Your task to perform on an android device: turn vacation reply on in the gmail app Image 0: 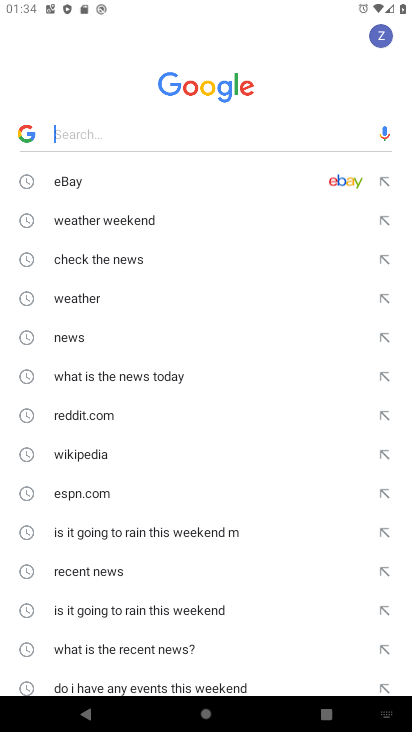
Step 0: press back button
Your task to perform on an android device: turn vacation reply on in the gmail app Image 1: 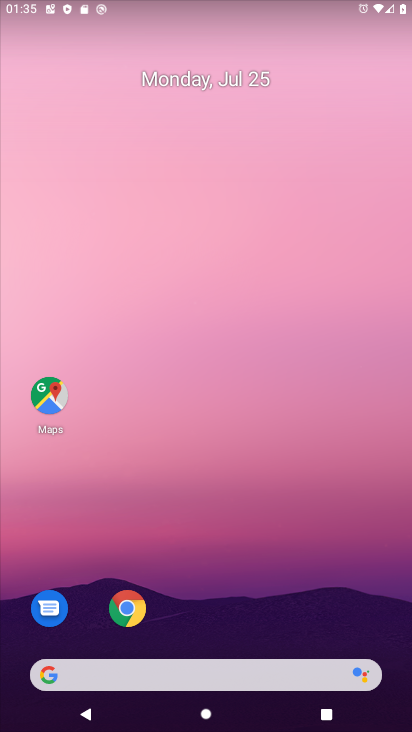
Step 1: drag from (247, 644) to (212, 160)
Your task to perform on an android device: turn vacation reply on in the gmail app Image 2: 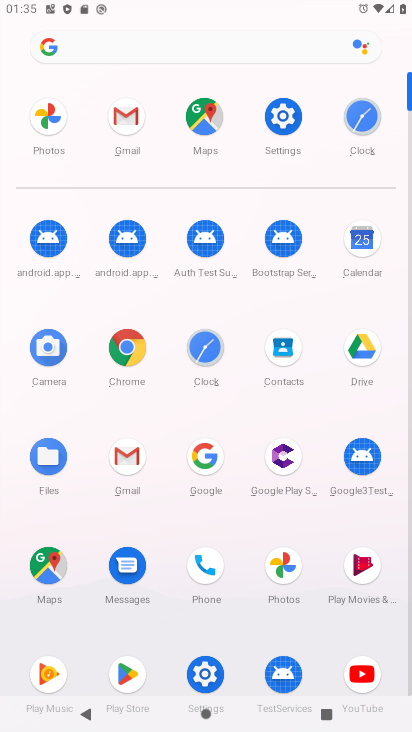
Step 2: click (137, 465)
Your task to perform on an android device: turn vacation reply on in the gmail app Image 3: 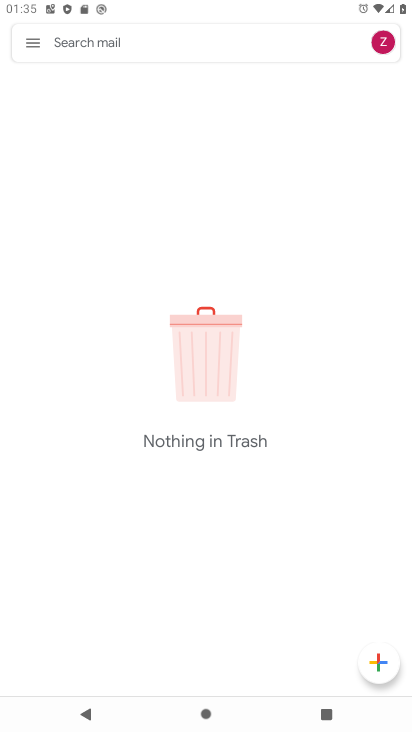
Step 3: click (40, 40)
Your task to perform on an android device: turn vacation reply on in the gmail app Image 4: 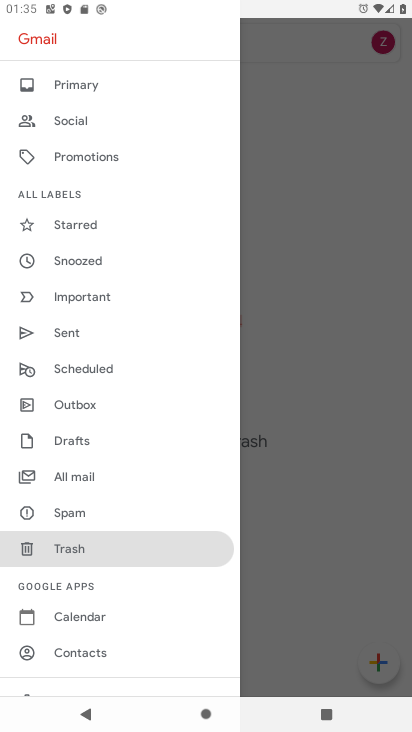
Step 4: drag from (129, 571) to (62, 101)
Your task to perform on an android device: turn vacation reply on in the gmail app Image 5: 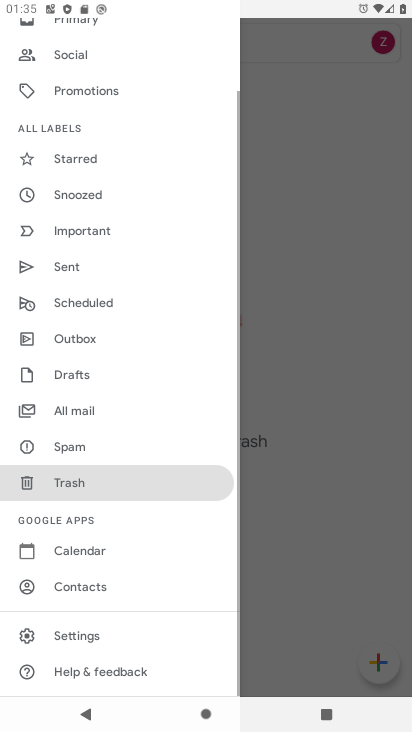
Step 5: click (69, 629)
Your task to perform on an android device: turn vacation reply on in the gmail app Image 6: 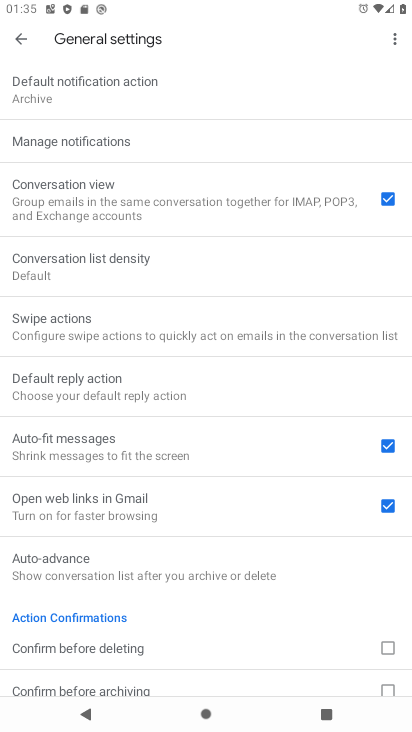
Step 6: click (70, 153)
Your task to perform on an android device: turn vacation reply on in the gmail app Image 7: 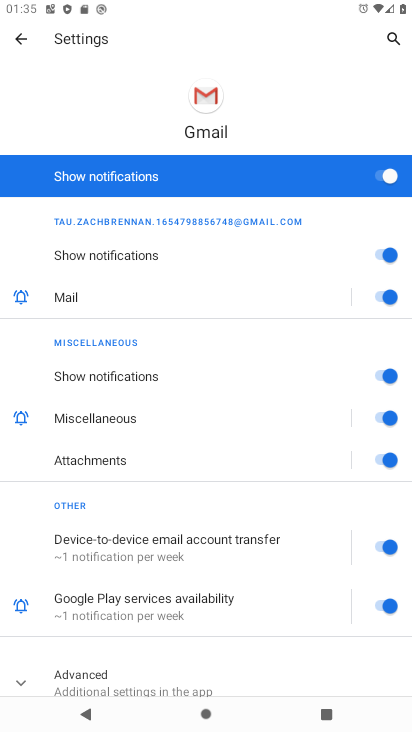
Step 7: click (22, 46)
Your task to perform on an android device: turn vacation reply on in the gmail app Image 8: 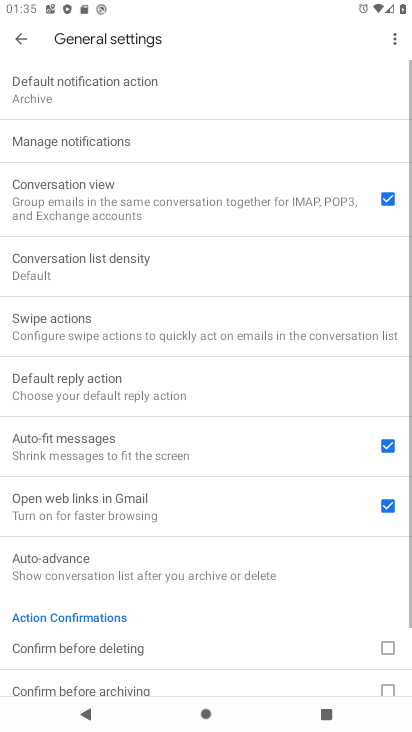
Step 8: drag from (143, 600) to (140, 134)
Your task to perform on an android device: turn vacation reply on in the gmail app Image 9: 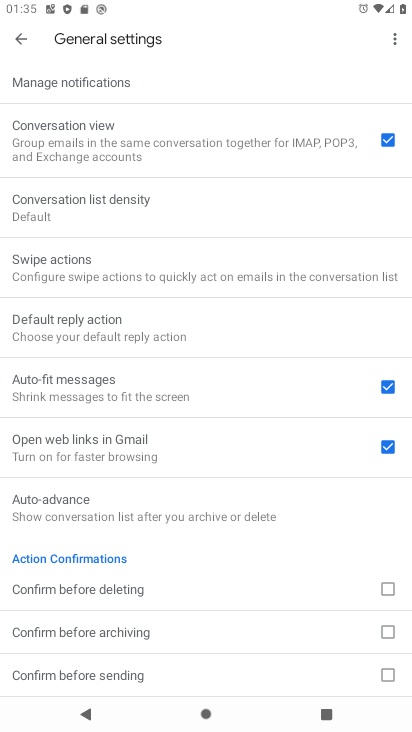
Step 9: click (27, 33)
Your task to perform on an android device: turn vacation reply on in the gmail app Image 10: 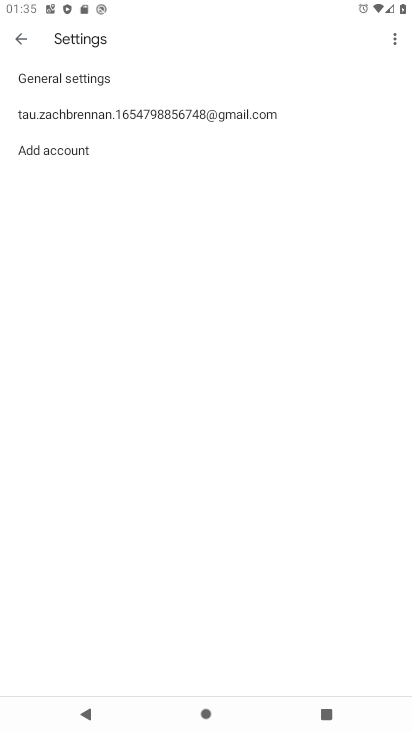
Step 10: click (57, 111)
Your task to perform on an android device: turn vacation reply on in the gmail app Image 11: 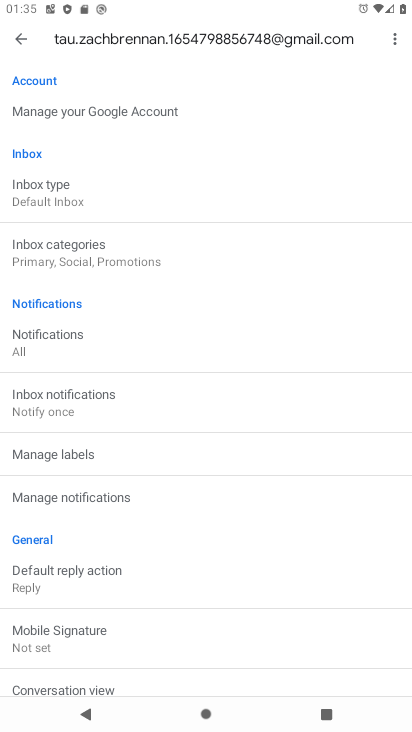
Step 11: drag from (210, 605) to (187, 302)
Your task to perform on an android device: turn vacation reply on in the gmail app Image 12: 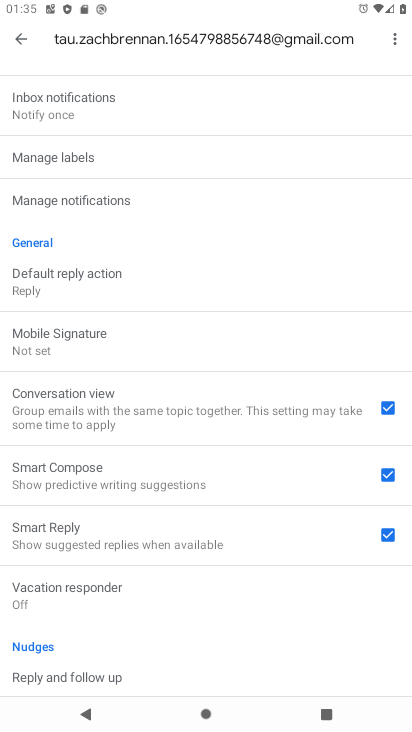
Step 12: click (206, 603)
Your task to perform on an android device: turn vacation reply on in the gmail app Image 13: 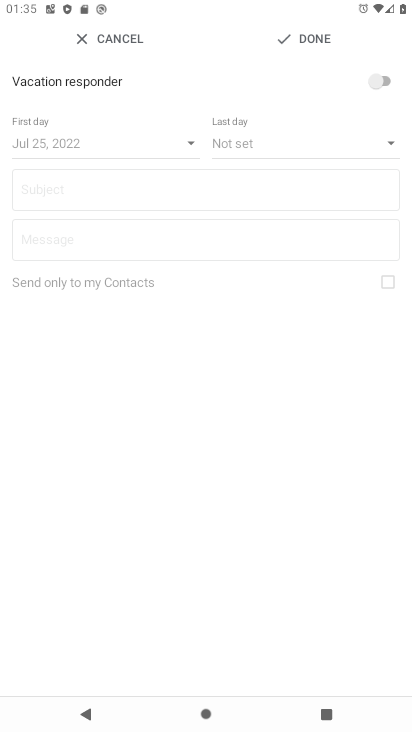
Step 13: click (371, 76)
Your task to perform on an android device: turn vacation reply on in the gmail app Image 14: 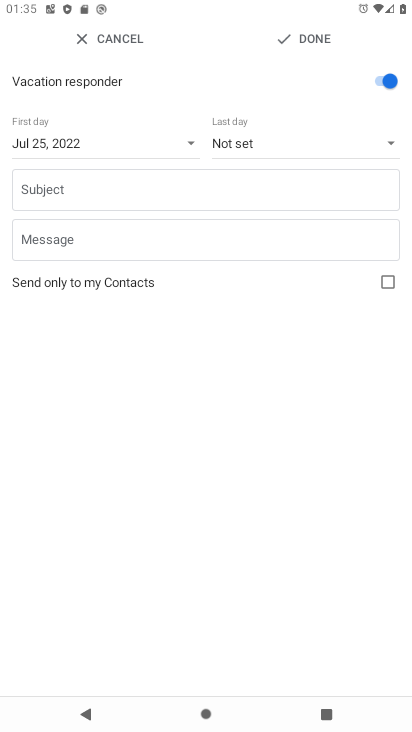
Step 14: click (333, 26)
Your task to perform on an android device: turn vacation reply on in the gmail app Image 15: 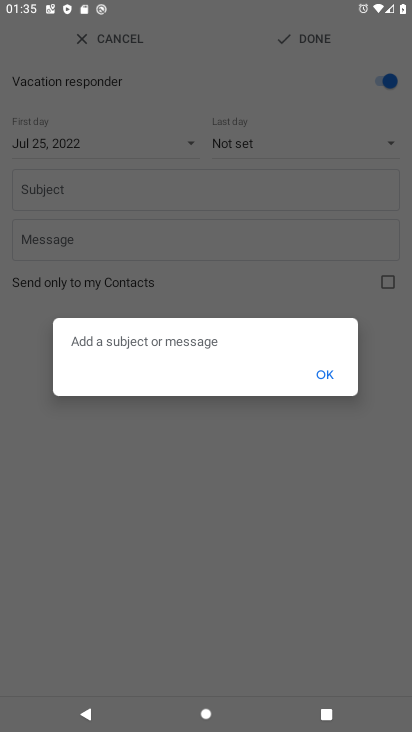
Step 15: task complete